Your task to perform on an android device: turn off notifications in google photos Image 0: 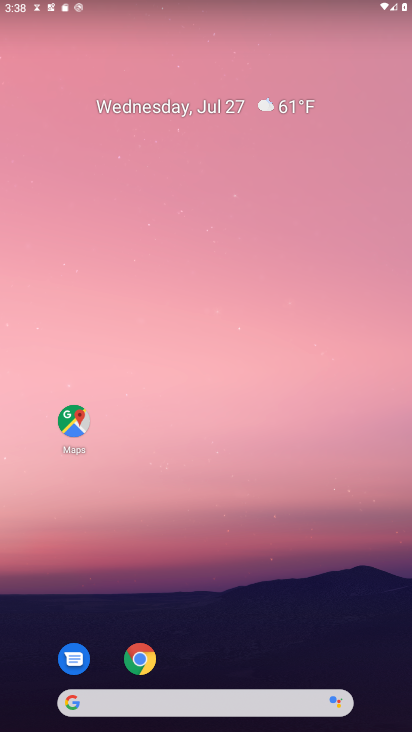
Step 0: drag from (235, 702) to (183, 150)
Your task to perform on an android device: turn off notifications in google photos Image 1: 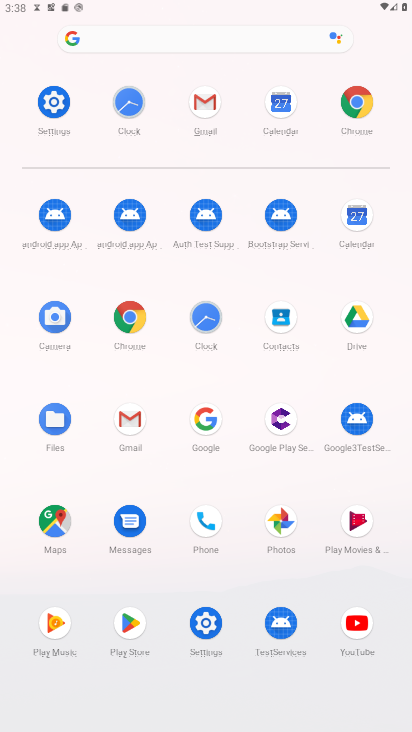
Step 1: click (293, 523)
Your task to perform on an android device: turn off notifications in google photos Image 2: 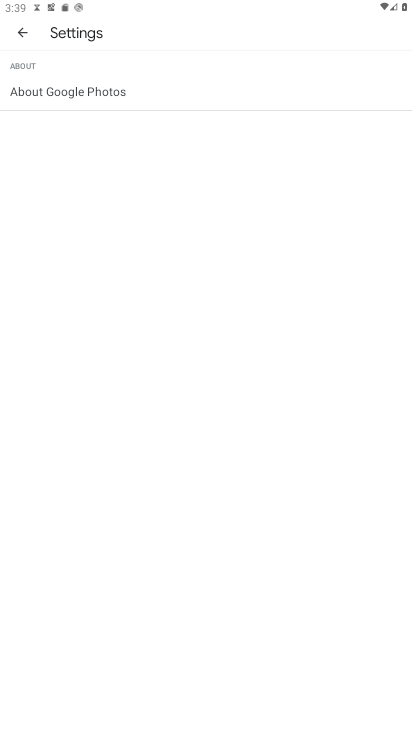
Step 2: press home button
Your task to perform on an android device: turn off notifications in google photos Image 3: 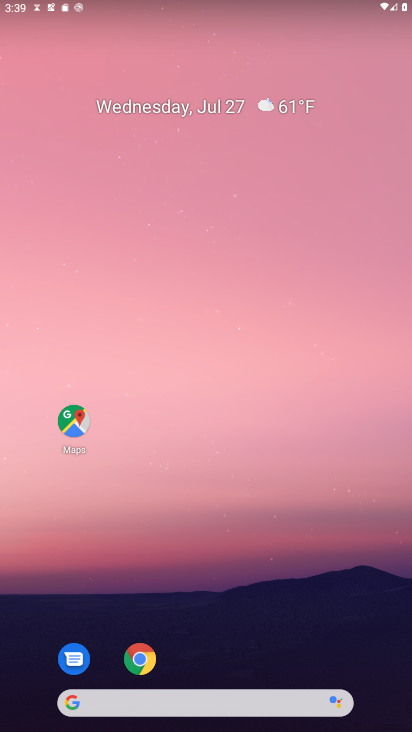
Step 3: drag from (215, 686) to (195, 38)
Your task to perform on an android device: turn off notifications in google photos Image 4: 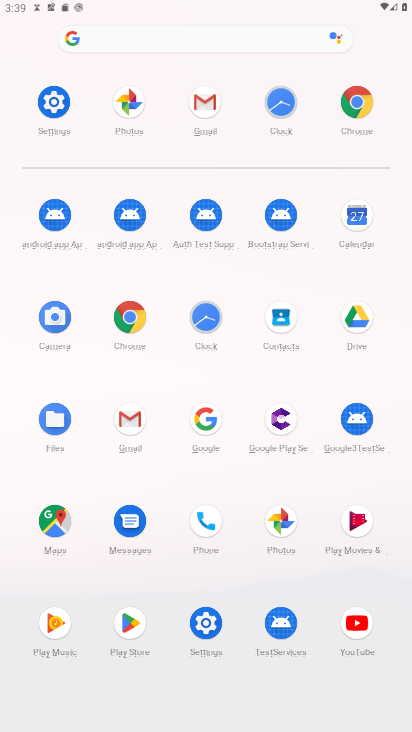
Step 4: click (295, 520)
Your task to perform on an android device: turn off notifications in google photos Image 5: 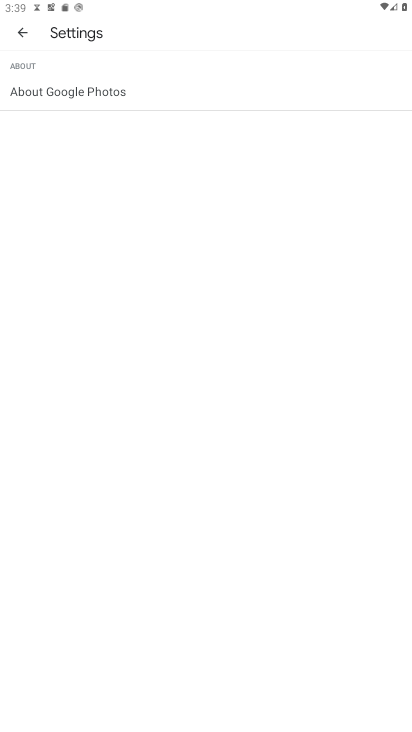
Step 5: click (31, 41)
Your task to perform on an android device: turn off notifications in google photos Image 6: 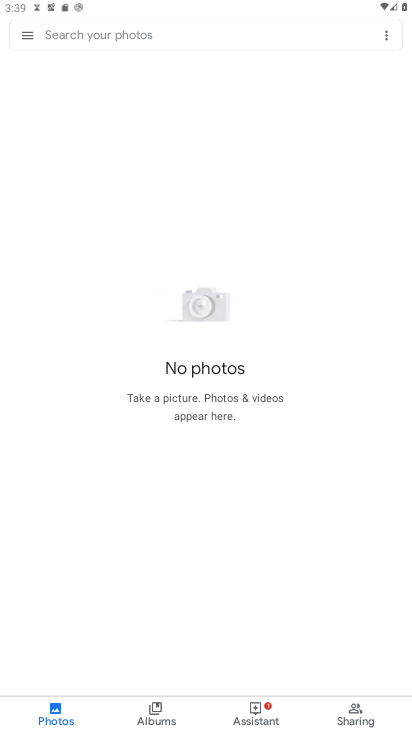
Step 6: click (23, 33)
Your task to perform on an android device: turn off notifications in google photos Image 7: 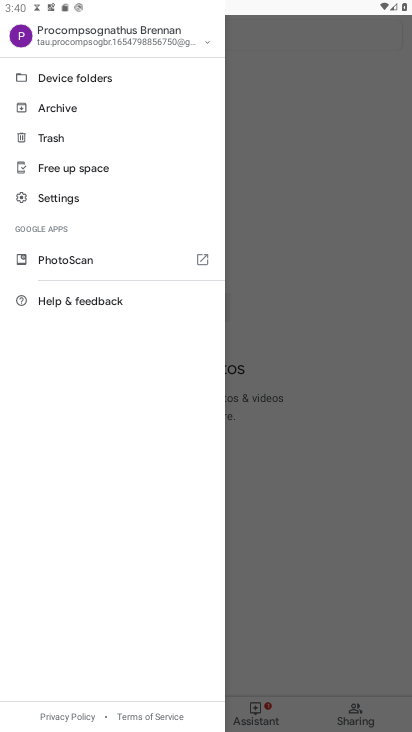
Step 7: click (54, 195)
Your task to perform on an android device: turn off notifications in google photos Image 8: 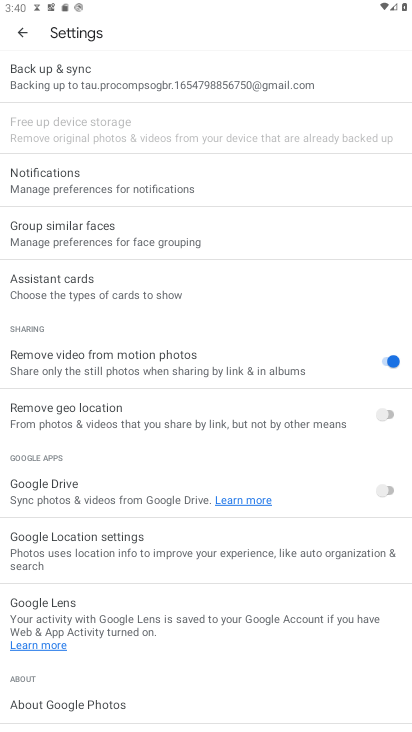
Step 8: click (79, 181)
Your task to perform on an android device: turn off notifications in google photos Image 9: 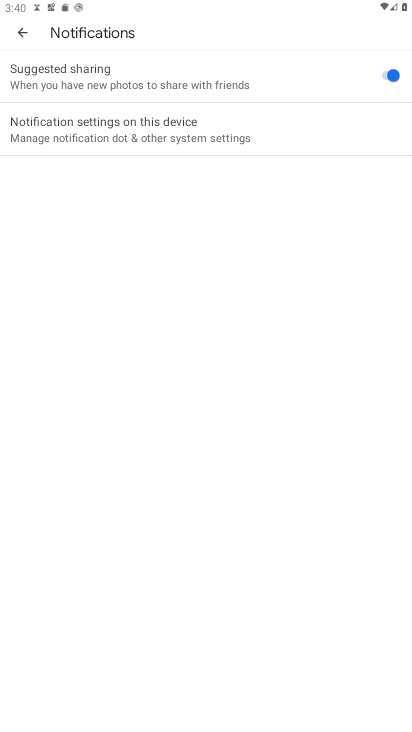
Step 9: click (124, 150)
Your task to perform on an android device: turn off notifications in google photos Image 10: 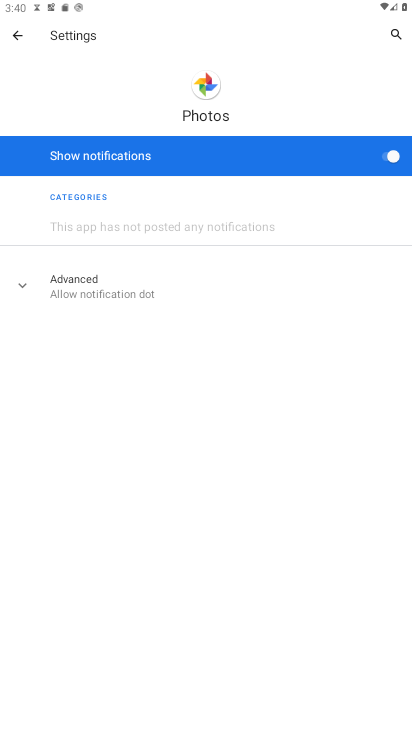
Step 10: click (401, 163)
Your task to perform on an android device: turn off notifications in google photos Image 11: 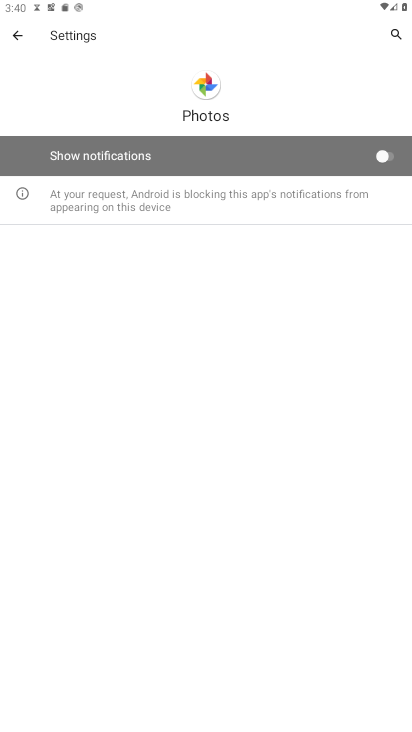
Step 11: task complete